Your task to perform on an android device: turn off location Image 0: 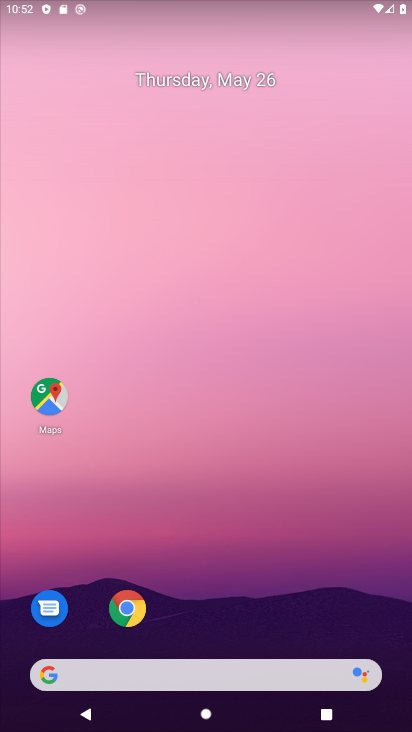
Step 0: drag from (215, 630) to (186, 173)
Your task to perform on an android device: turn off location Image 1: 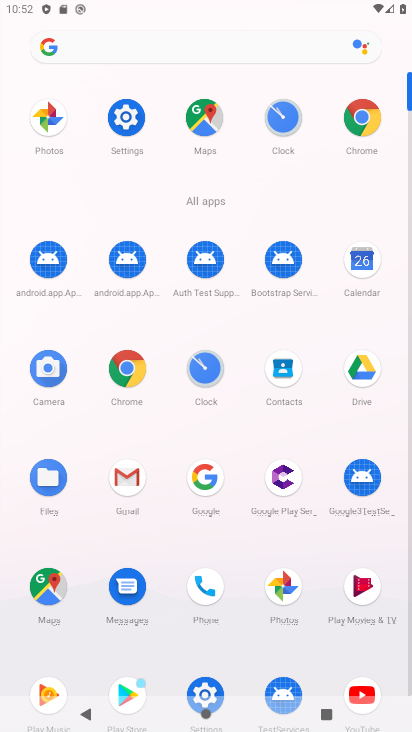
Step 1: click (136, 121)
Your task to perform on an android device: turn off location Image 2: 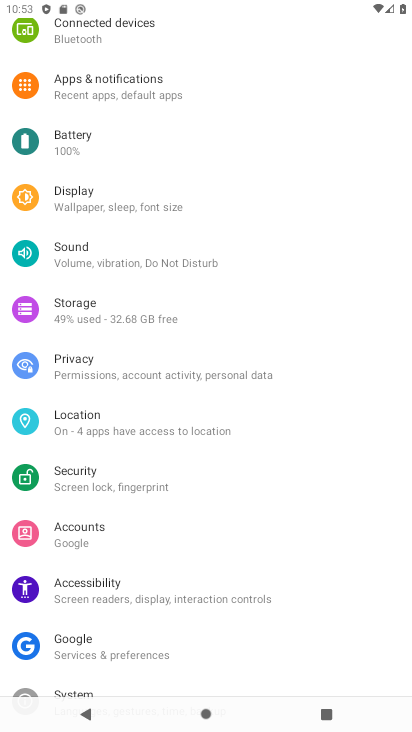
Step 2: click (165, 432)
Your task to perform on an android device: turn off location Image 3: 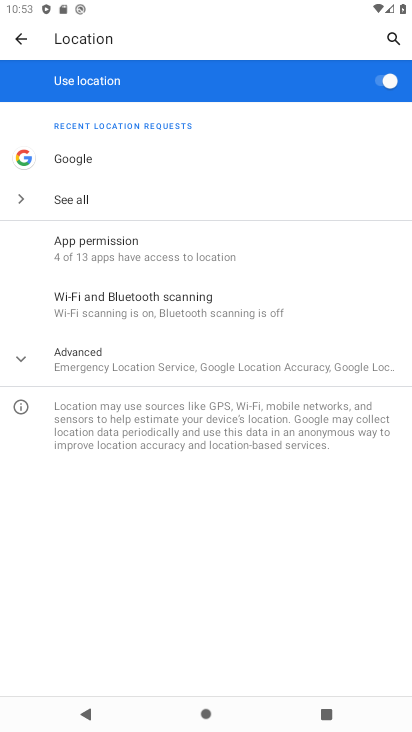
Step 3: click (382, 76)
Your task to perform on an android device: turn off location Image 4: 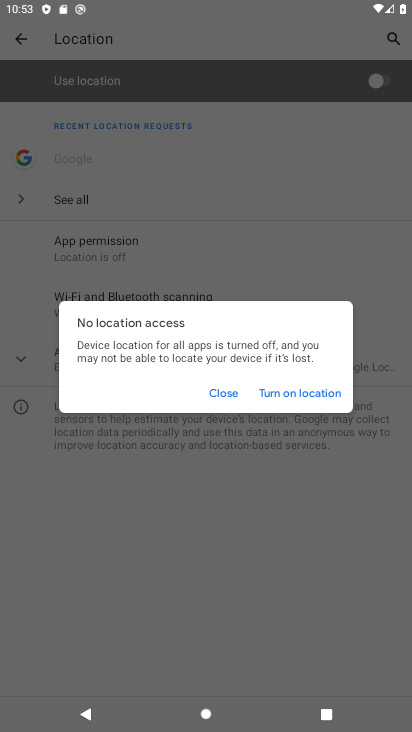
Step 4: task complete